Your task to perform on an android device: Open notification settings Image 0: 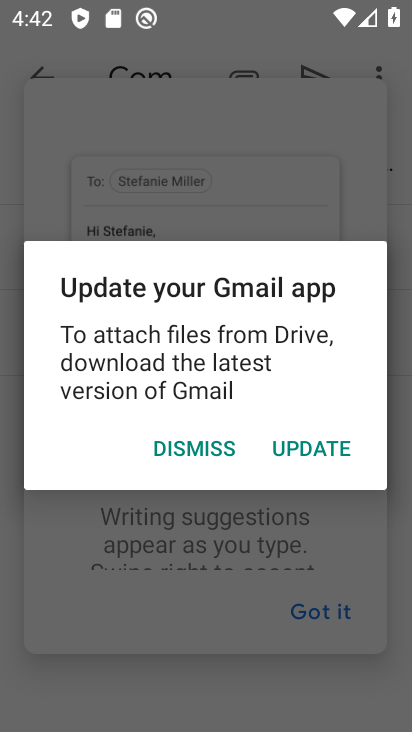
Step 0: press home button
Your task to perform on an android device: Open notification settings Image 1: 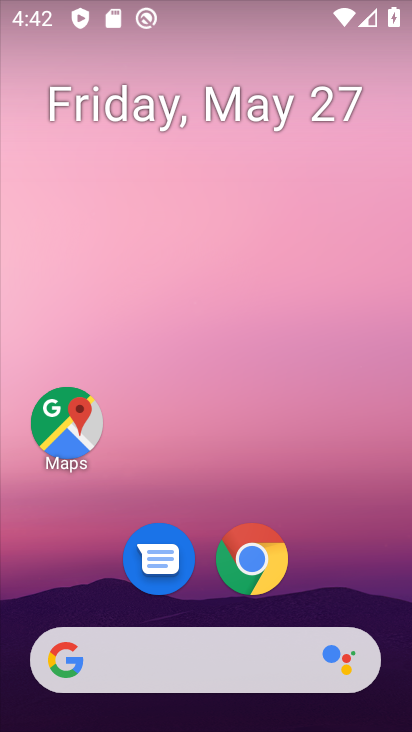
Step 1: drag from (233, 481) to (218, 45)
Your task to perform on an android device: Open notification settings Image 2: 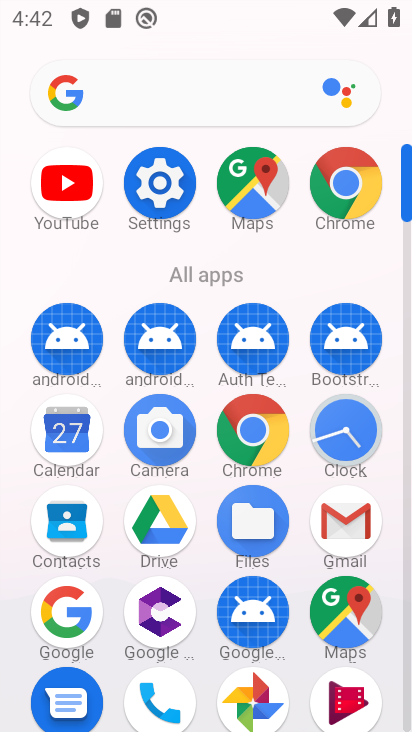
Step 2: click (166, 187)
Your task to perform on an android device: Open notification settings Image 3: 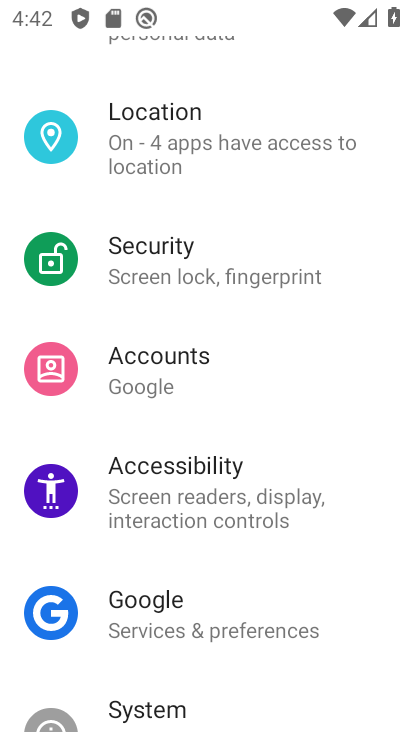
Step 3: drag from (219, 198) to (155, 698)
Your task to perform on an android device: Open notification settings Image 4: 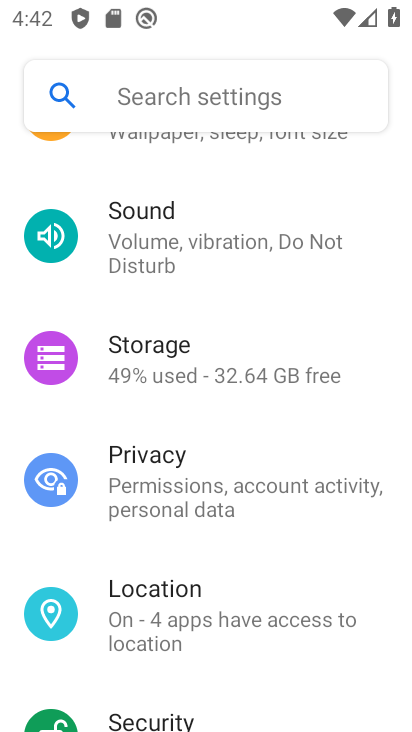
Step 4: drag from (163, 198) to (102, 657)
Your task to perform on an android device: Open notification settings Image 5: 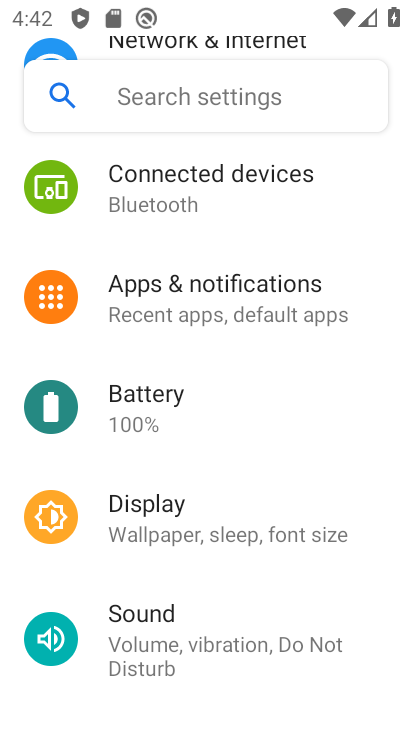
Step 5: click (211, 307)
Your task to perform on an android device: Open notification settings Image 6: 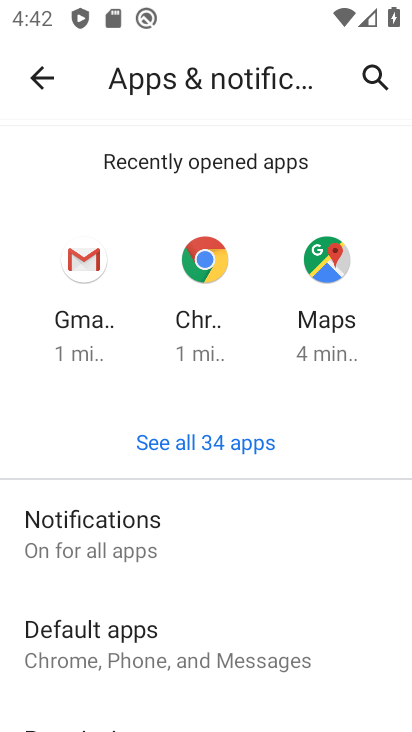
Step 6: click (133, 562)
Your task to perform on an android device: Open notification settings Image 7: 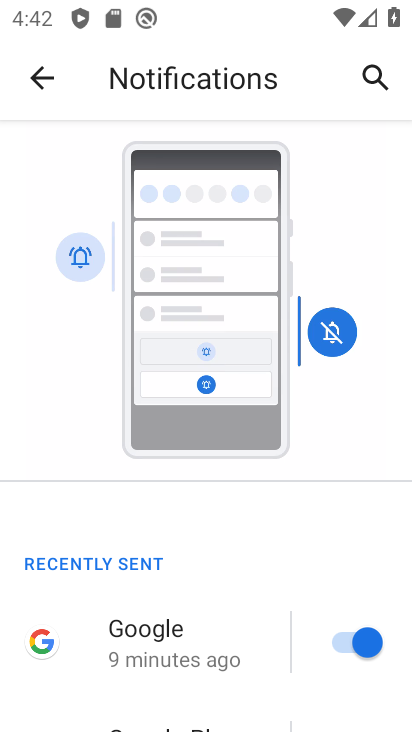
Step 7: task complete